Your task to perform on an android device: Open Google Chrome Image 0: 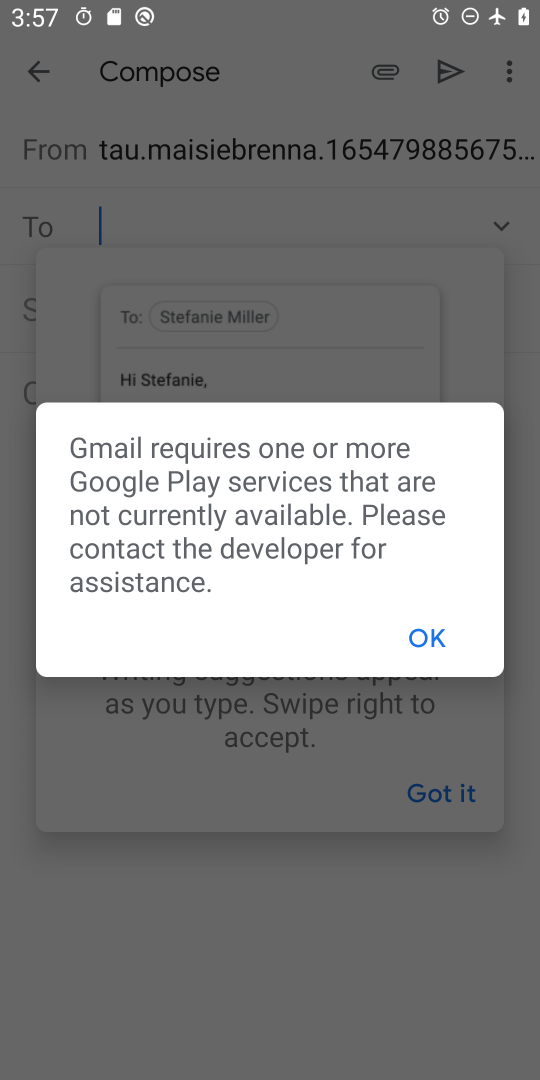
Step 0: press home button
Your task to perform on an android device: Open Google Chrome Image 1: 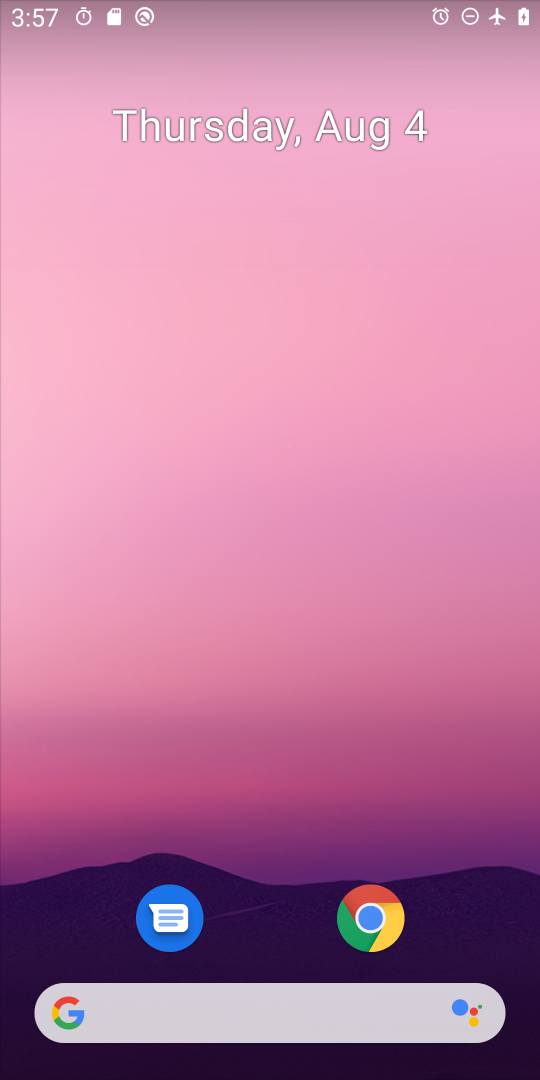
Step 1: click (394, 914)
Your task to perform on an android device: Open Google Chrome Image 2: 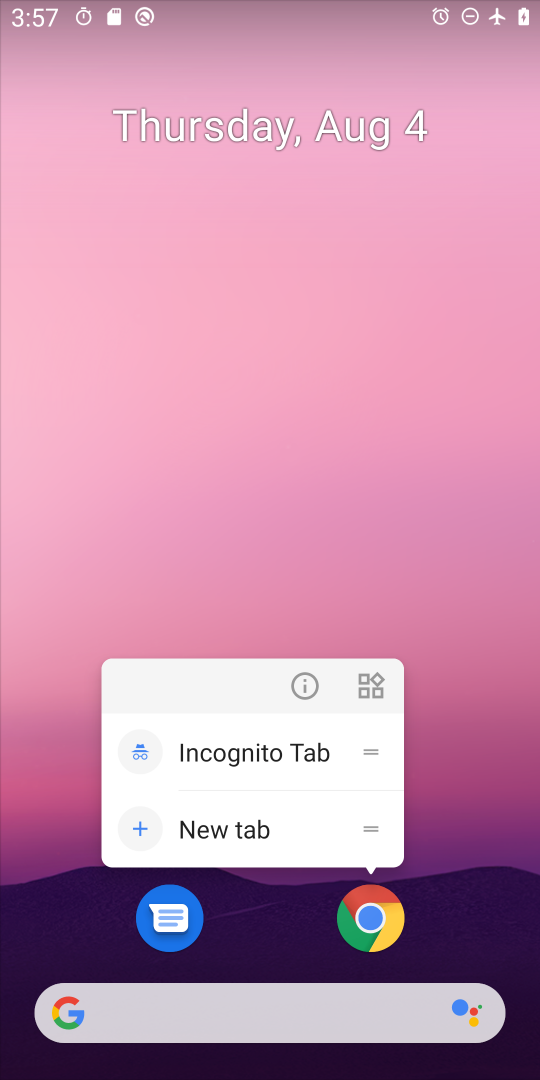
Step 2: click (406, 906)
Your task to perform on an android device: Open Google Chrome Image 3: 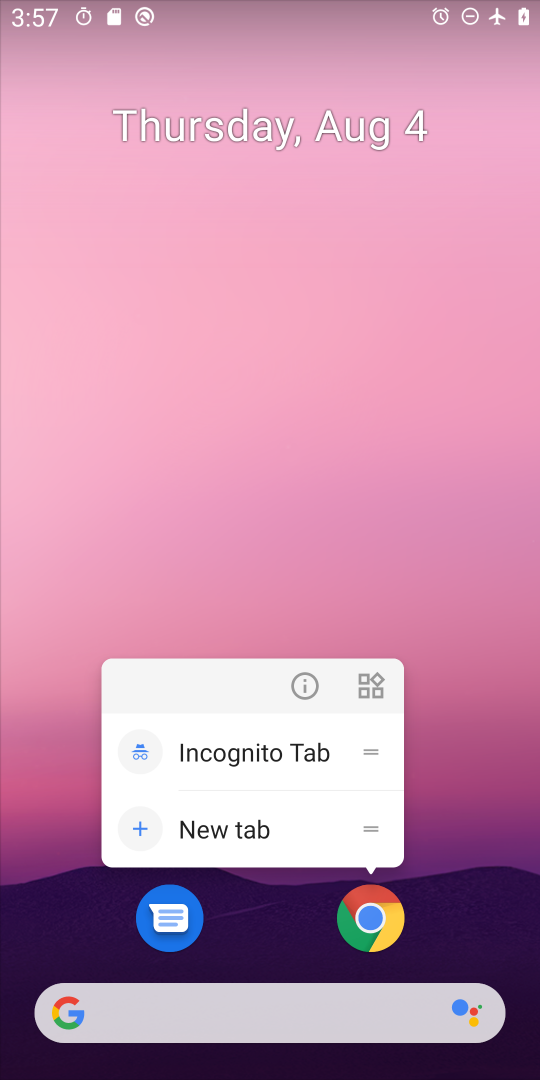
Step 3: click (406, 906)
Your task to perform on an android device: Open Google Chrome Image 4: 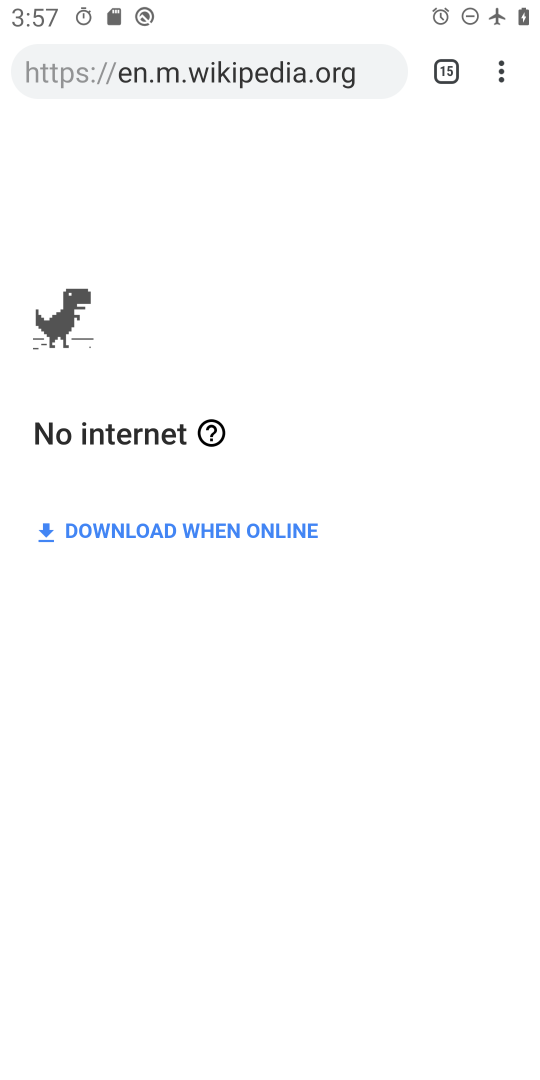
Step 4: task complete